Your task to perform on an android device: turn on javascript in the chrome app Image 0: 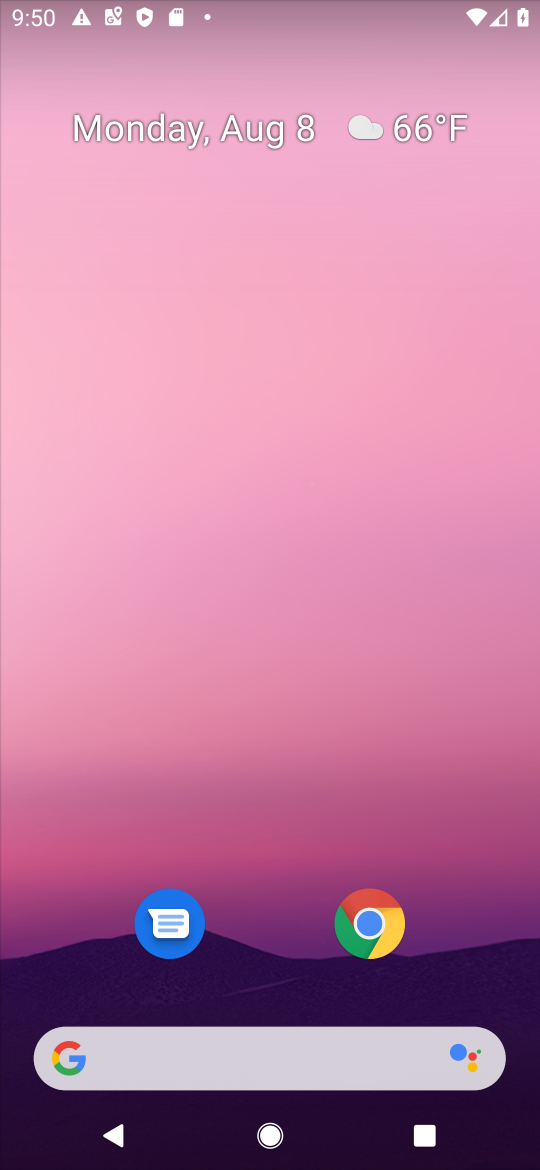
Step 0: click (385, 915)
Your task to perform on an android device: turn on javascript in the chrome app Image 1: 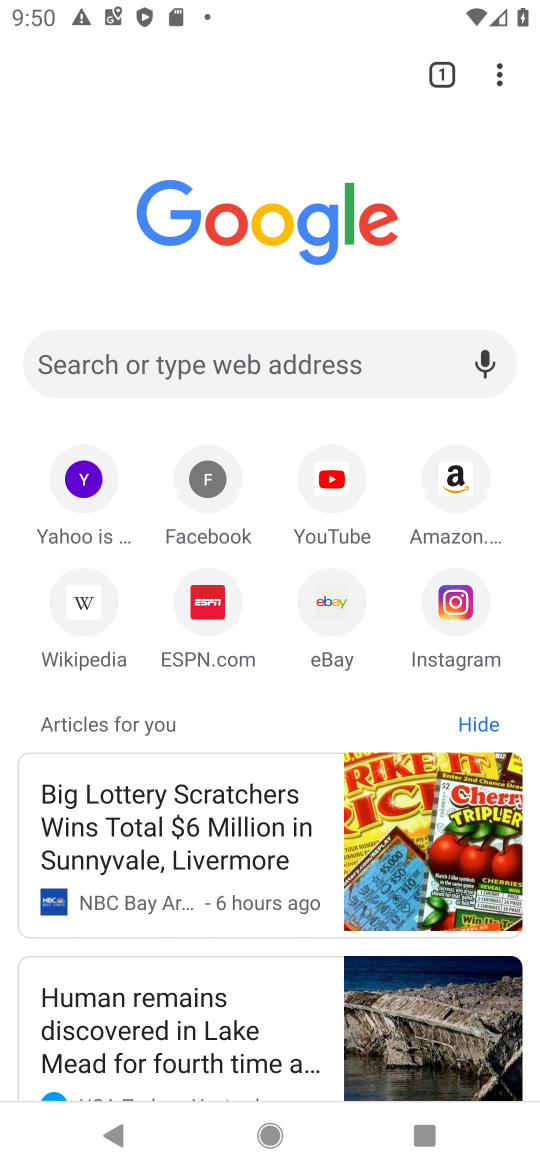
Step 1: click (506, 78)
Your task to perform on an android device: turn on javascript in the chrome app Image 2: 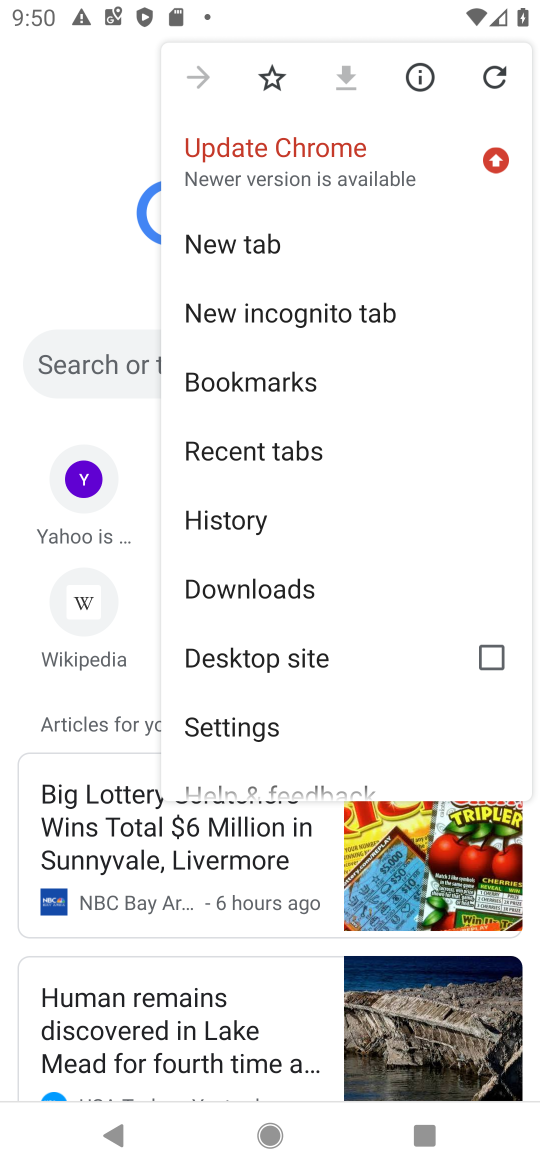
Step 2: click (232, 735)
Your task to perform on an android device: turn on javascript in the chrome app Image 3: 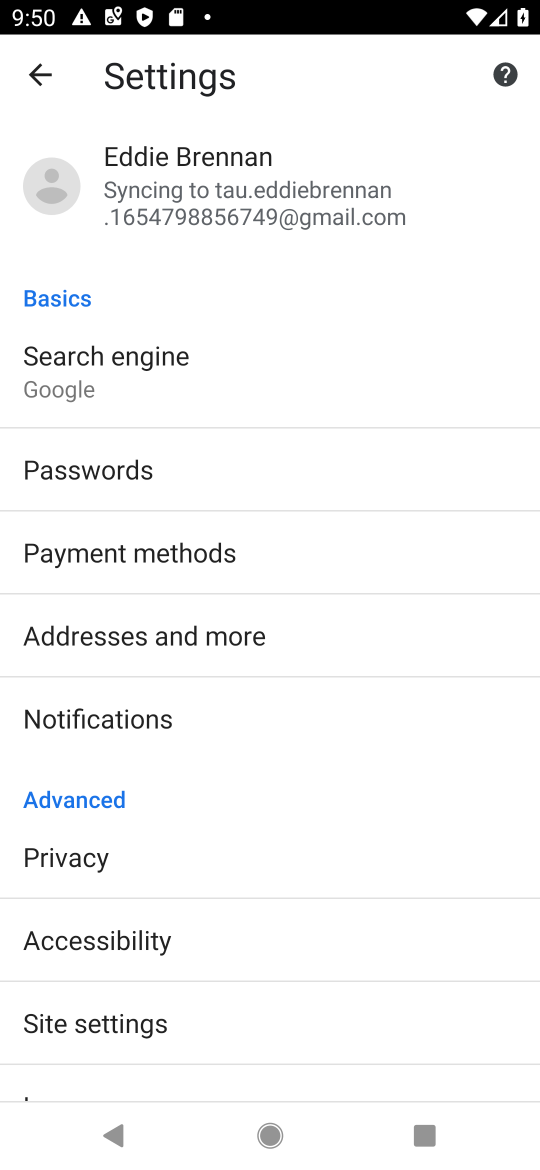
Step 3: click (118, 1025)
Your task to perform on an android device: turn on javascript in the chrome app Image 4: 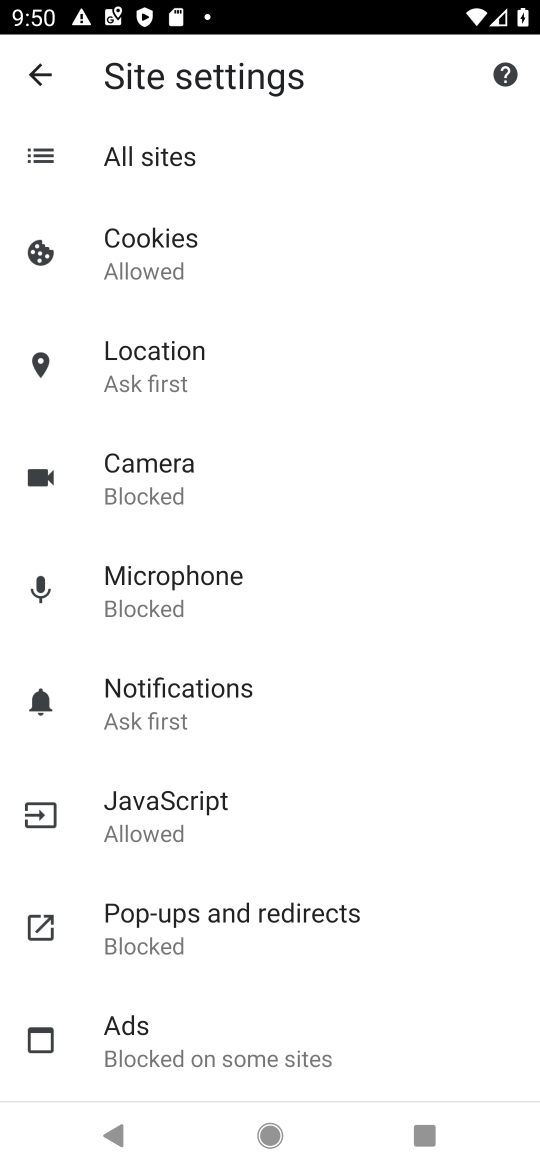
Step 4: click (156, 807)
Your task to perform on an android device: turn on javascript in the chrome app Image 5: 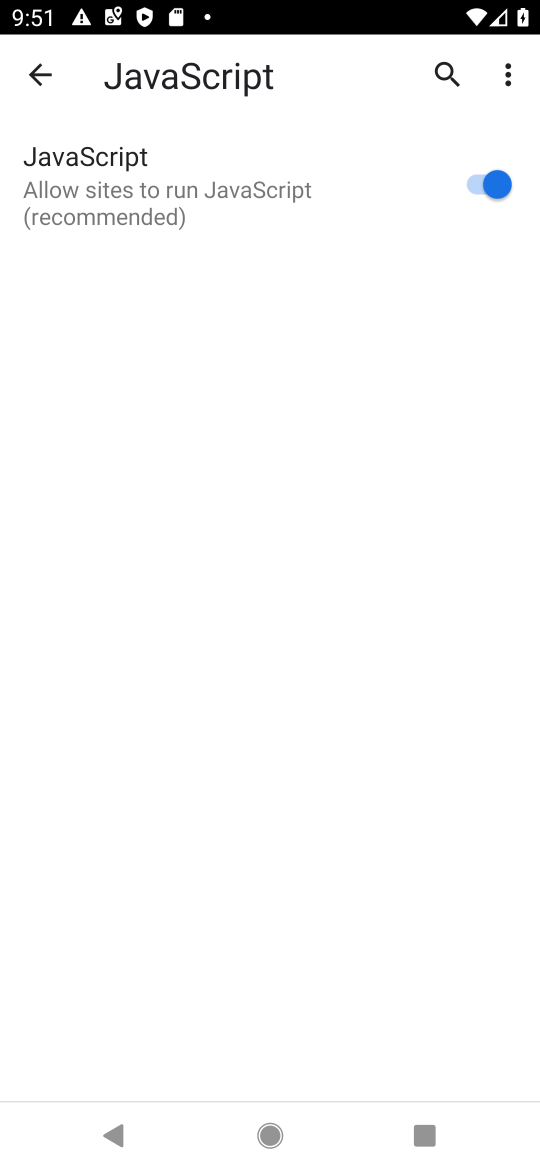
Step 5: task complete